Your task to perform on an android device: See recent photos Image 0: 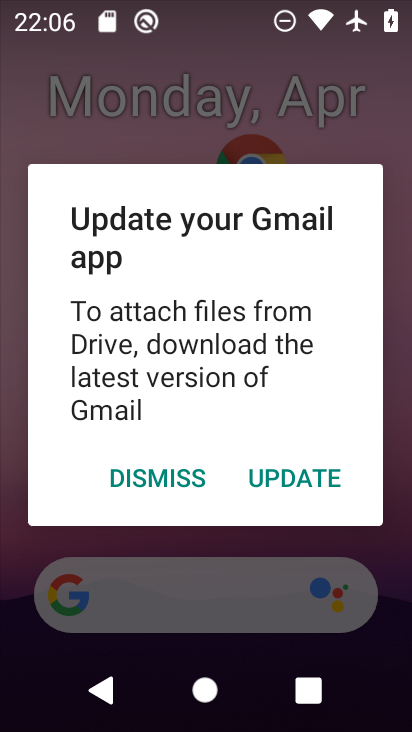
Step 0: press home button
Your task to perform on an android device: See recent photos Image 1: 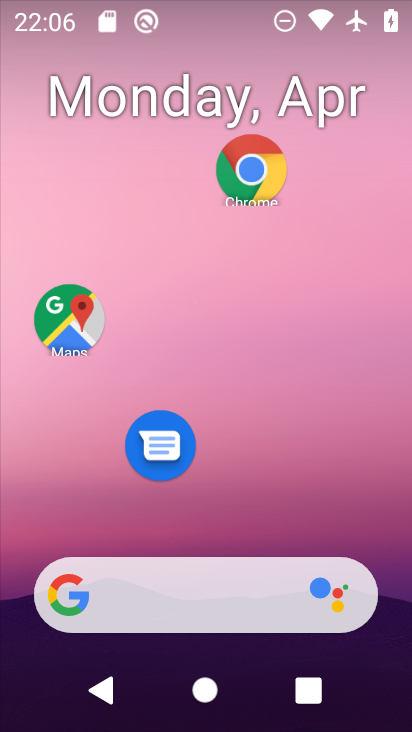
Step 1: drag from (212, 536) to (207, 196)
Your task to perform on an android device: See recent photos Image 2: 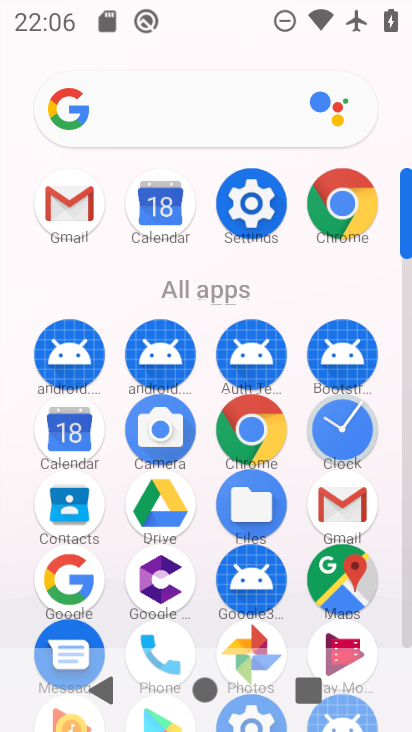
Step 2: drag from (202, 597) to (202, 312)
Your task to perform on an android device: See recent photos Image 3: 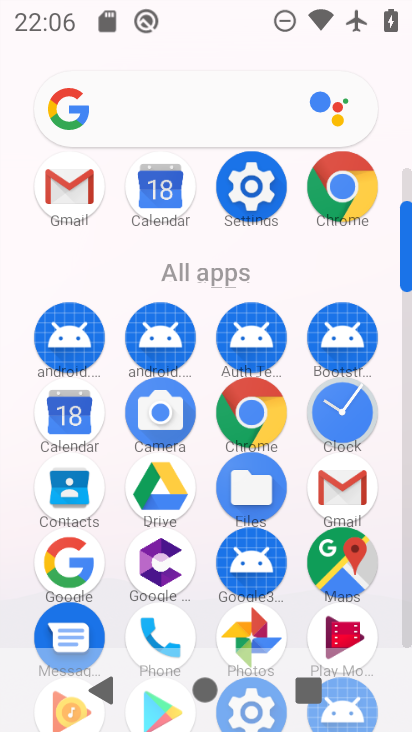
Step 3: click (243, 611)
Your task to perform on an android device: See recent photos Image 4: 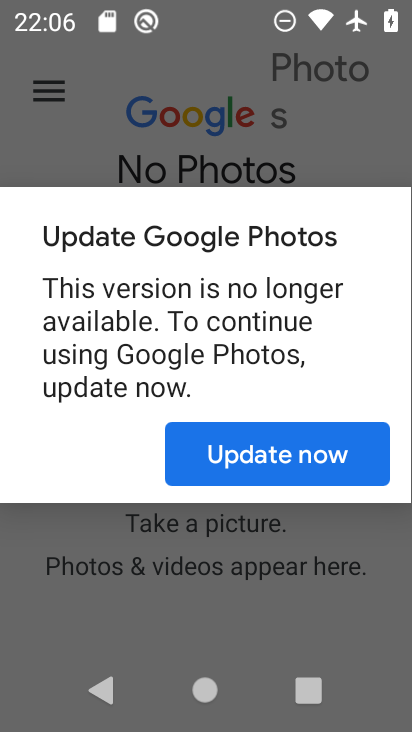
Step 4: click (254, 459)
Your task to perform on an android device: See recent photos Image 5: 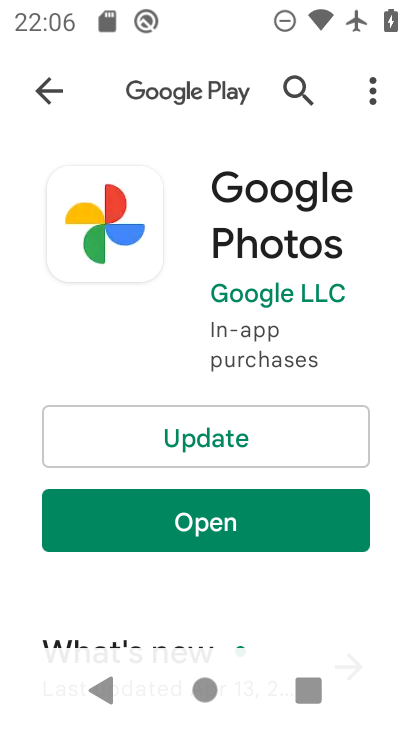
Step 5: click (218, 532)
Your task to perform on an android device: See recent photos Image 6: 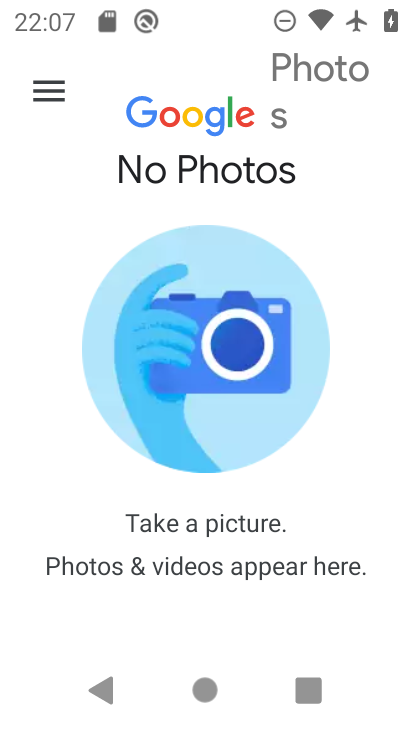
Step 6: click (61, 87)
Your task to perform on an android device: See recent photos Image 7: 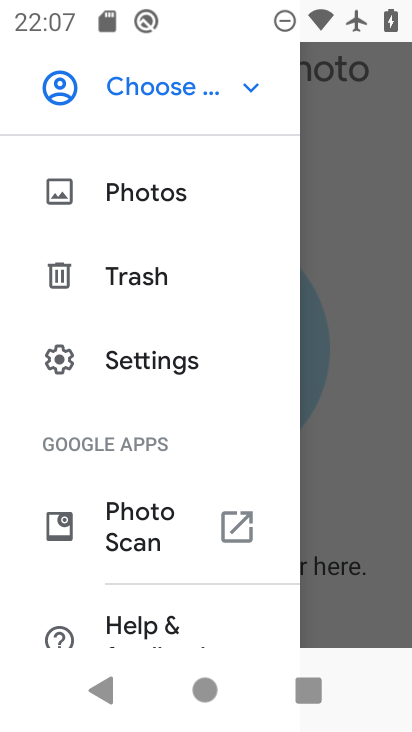
Step 7: click (127, 185)
Your task to perform on an android device: See recent photos Image 8: 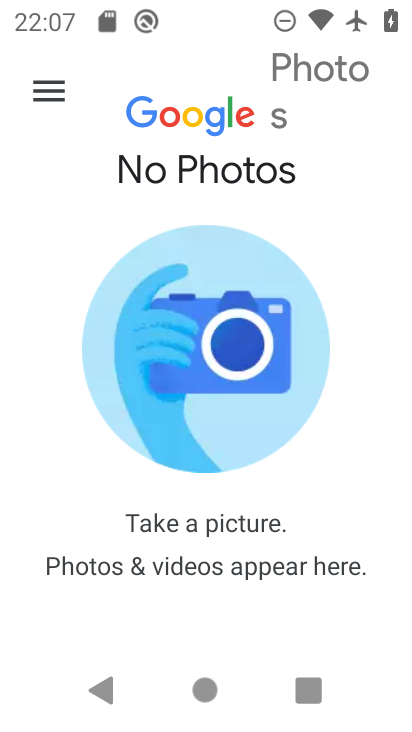
Step 8: task complete